Your task to perform on an android device: Search for a 4k TV on Best Buy Image 0: 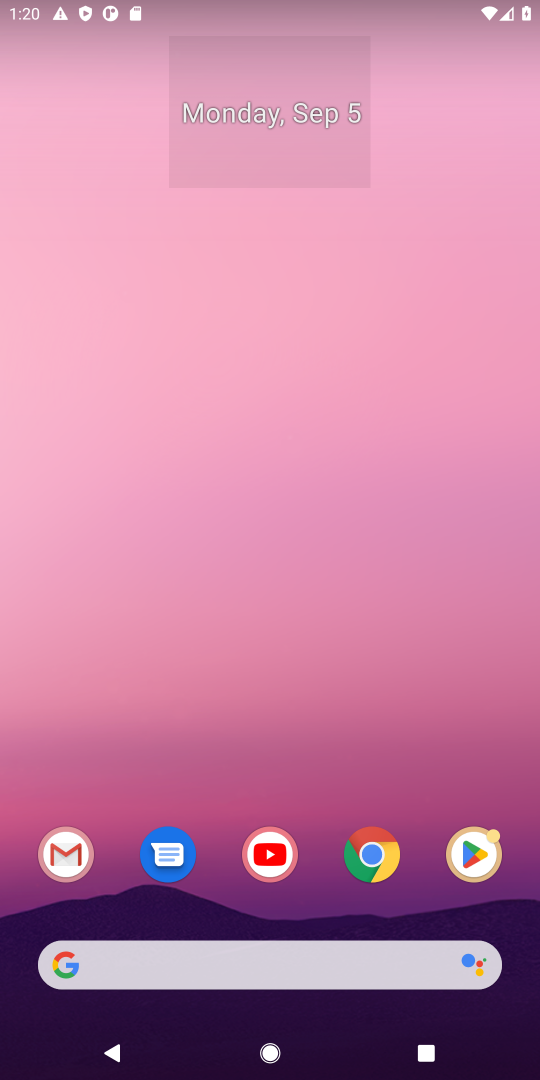
Step 0: press home button
Your task to perform on an android device: Search for a 4k TV on Best Buy Image 1: 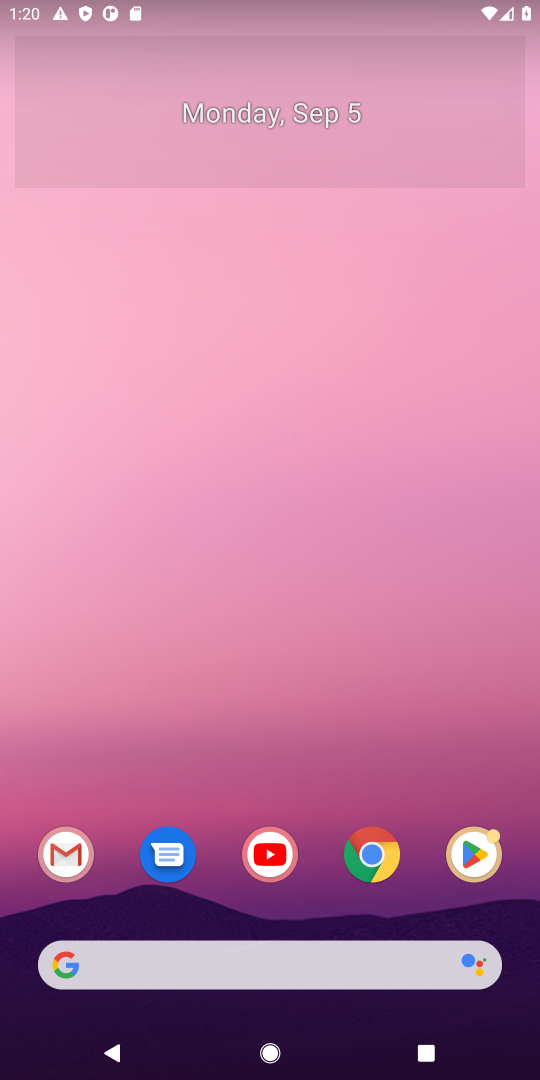
Step 1: click (365, 962)
Your task to perform on an android device: Search for a 4k TV on Best Buy Image 2: 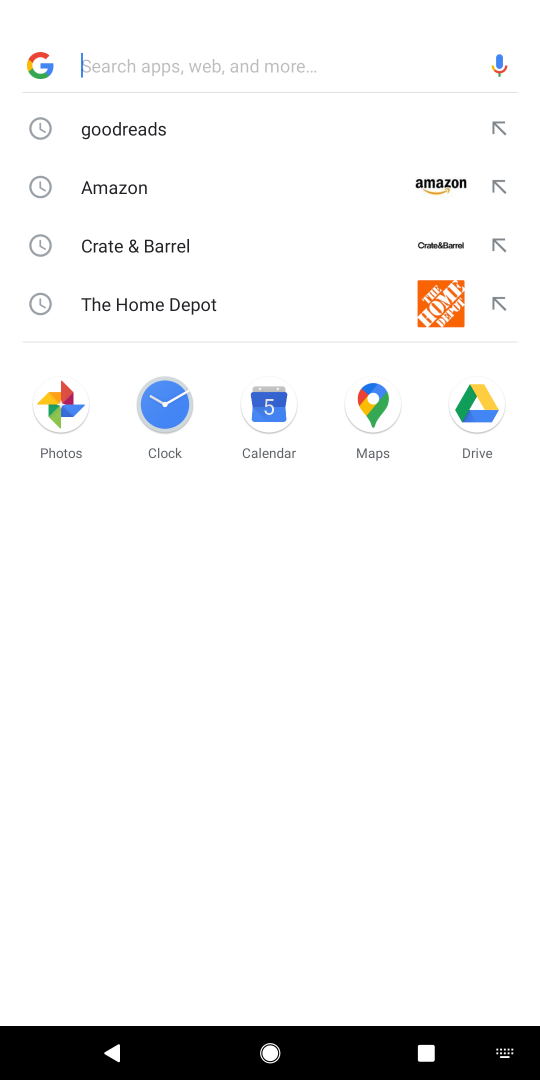
Step 2: press enter
Your task to perform on an android device: Search for a 4k TV on Best Buy Image 3: 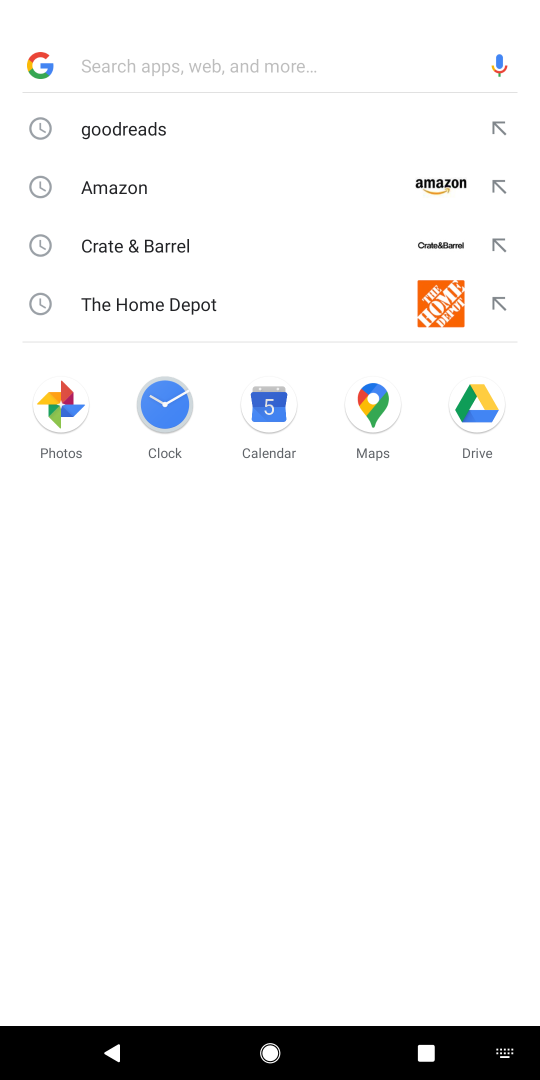
Step 3: type "best buy"
Your task to perform on an android device: Search for a 4k TV on Best Buy Image 4: 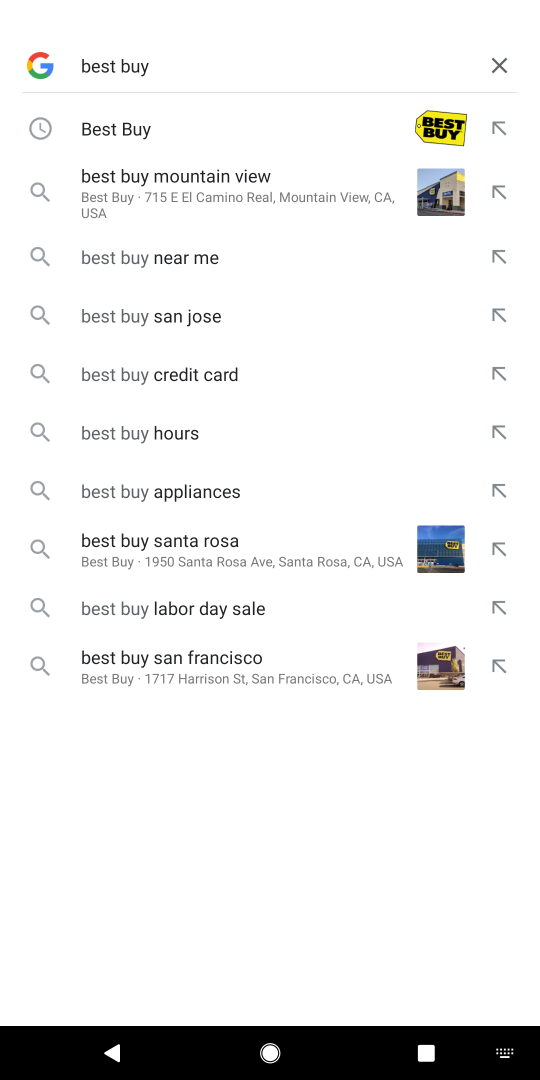
Step 4: click (155, 130)
Your task to perform on an android device: Search for a 4k TV on Best Buy Image 5: 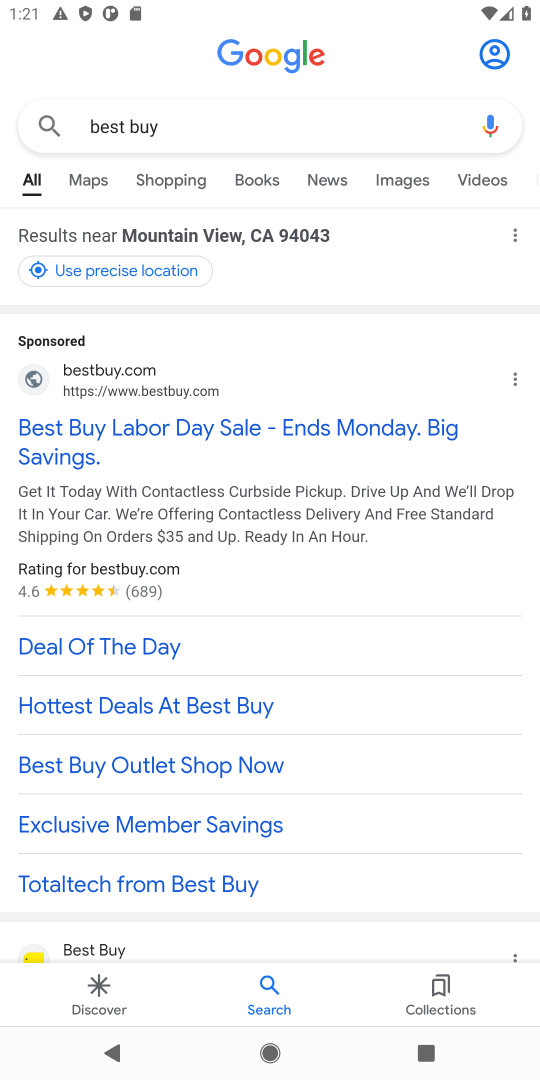
Step 5: click (291, 428)
Your task to perform on an android device: Search for a 4k TV on Best Buy Image 6: 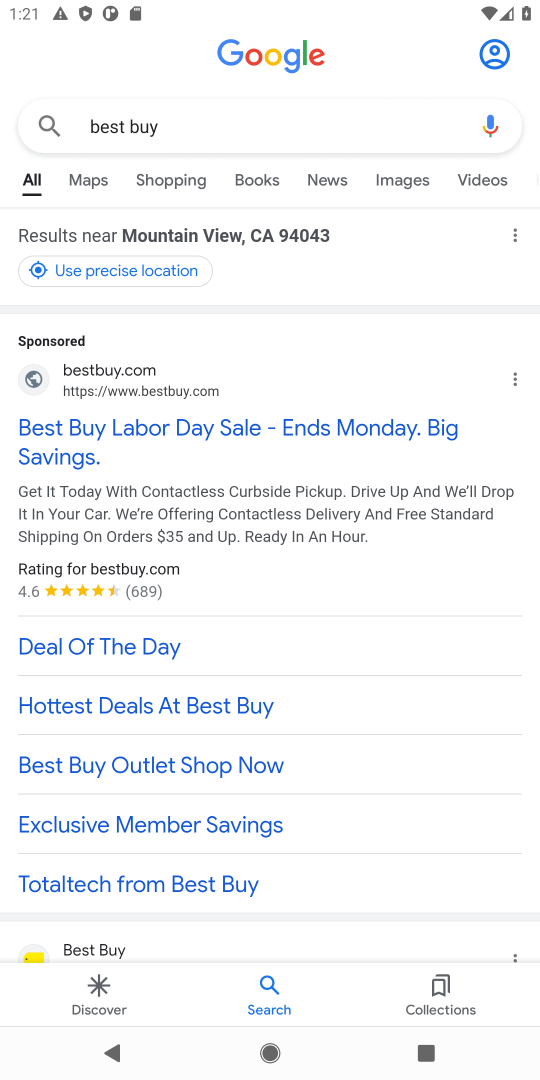
Step 6: click (91, 437)
Your task to perform on an android device: Search for a 4k TV on Best Buy Image 7: 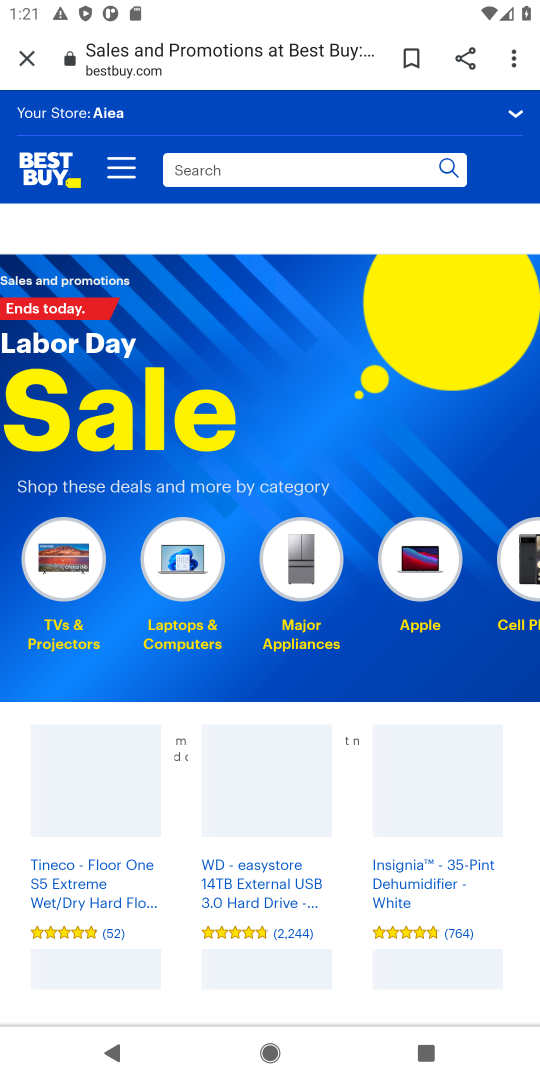
Step 7: click (241, 170)
Your task to perform on an android device: Search for a 4k TV on Best Buy Image 8: 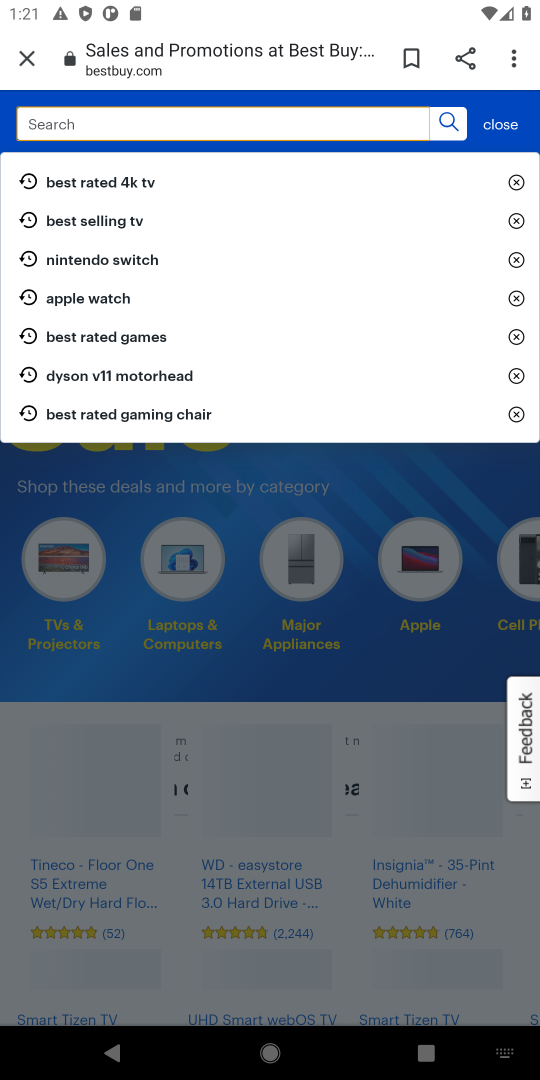
Step 8: press enter
Your task to perform on an android device: Search for a 4k TV on Best Buy Image 9: 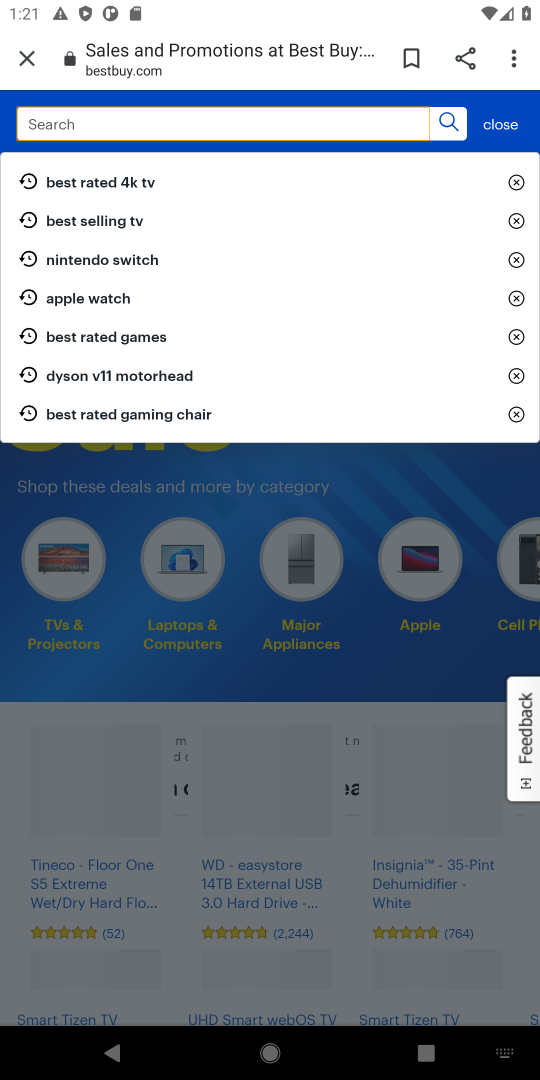
Step 9: type "4k tv"
Your task to perform on an android device: Search for a 4k TV on Best Buy Image 10: 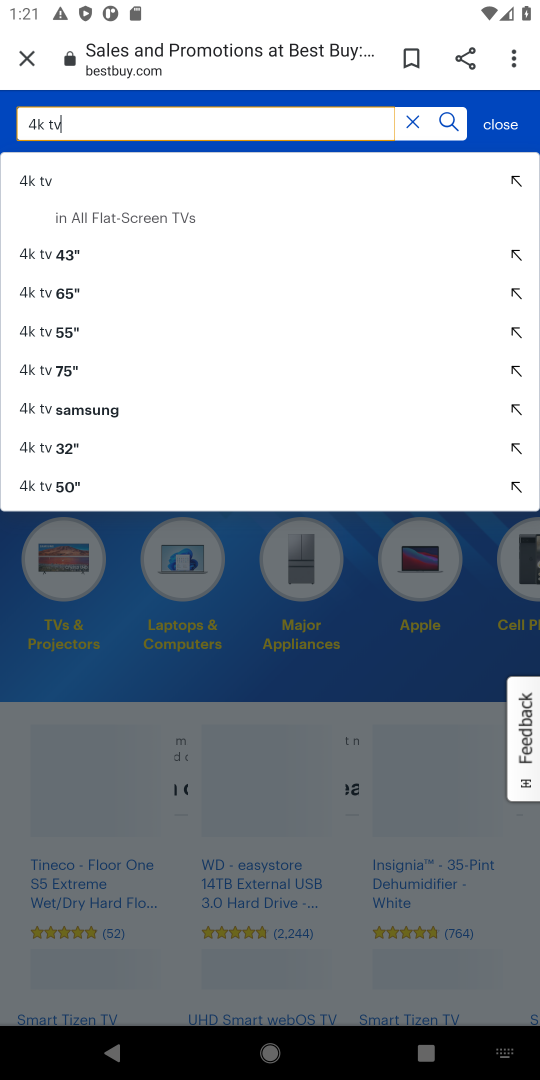
Step 10: click (50, 179)
Your task to perform on an android device: Search for a 4k TV on Best Buy Image 11: 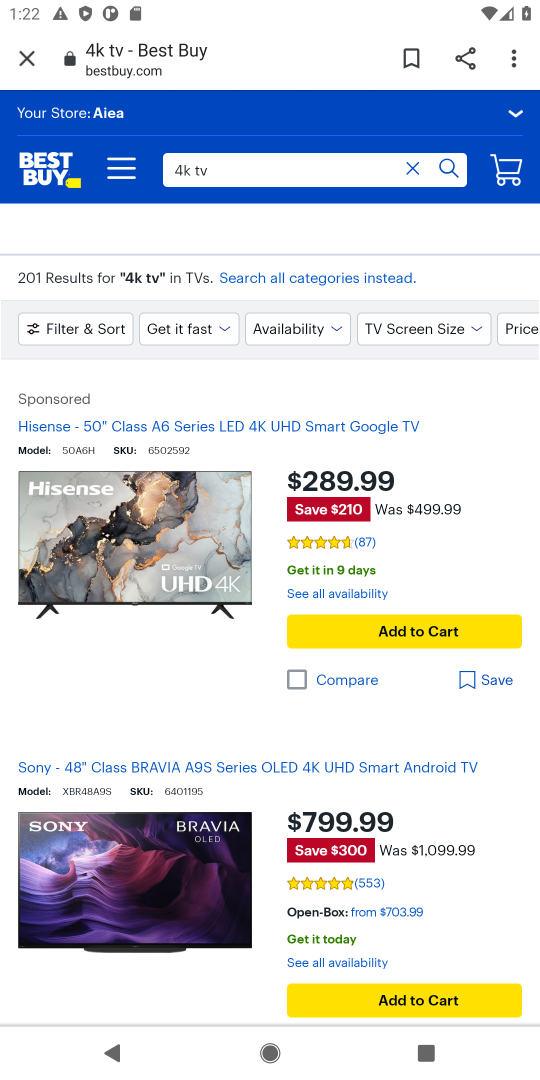
Step 11: task complete